Your task to perform on an android device: turn on data saver in the chrome app Image 0: 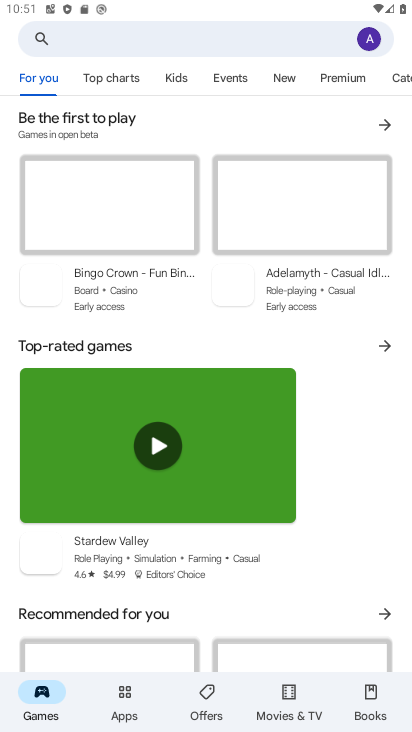
Step 0: press home button
Your task to perform on an android device: turn on data saver in the chrome app Image 1: 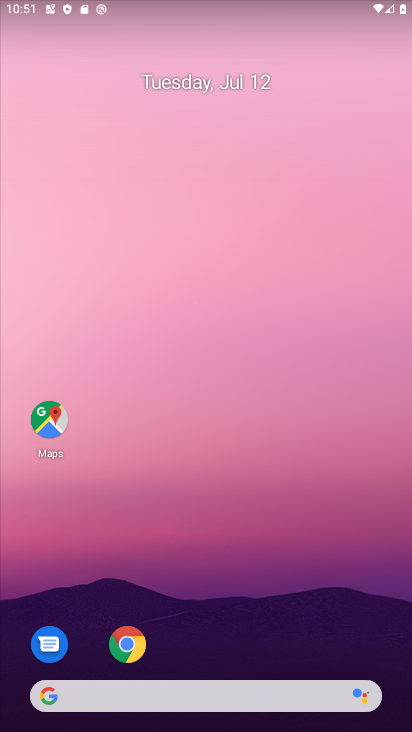
Step 1: drag from (320, 573) to (258, 9)
Your task to perform on an android device: turn on data saver in the chrome app Image 2: 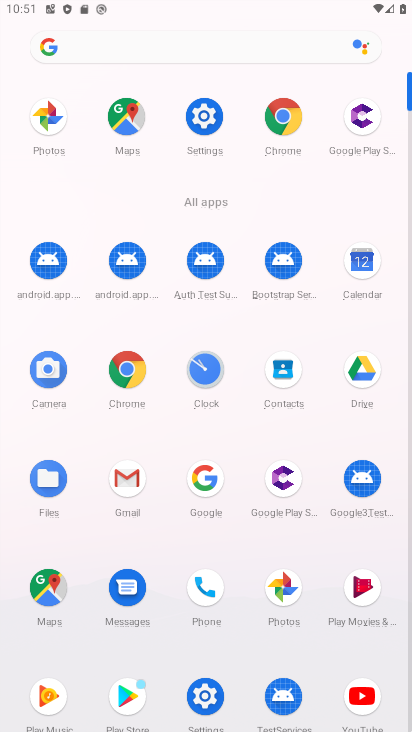
Step 2: click (285, 115)
Your task to perform on an android device: turn on data saver in the chrome app Image 3: 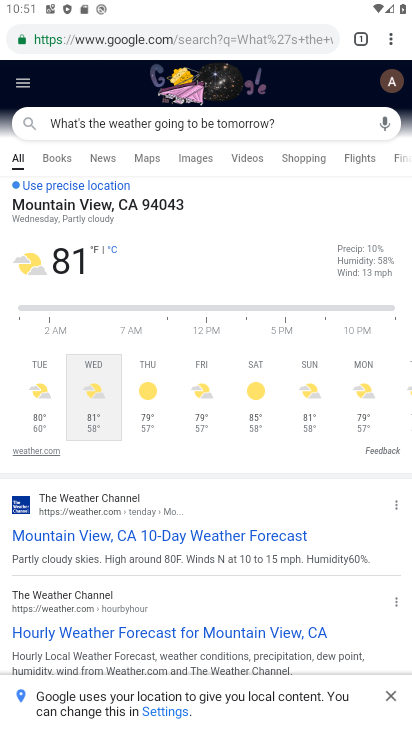
Step 3: click (390, 43)
Your task to perform on an android device: turn on data saver in the chrome app Image 4: 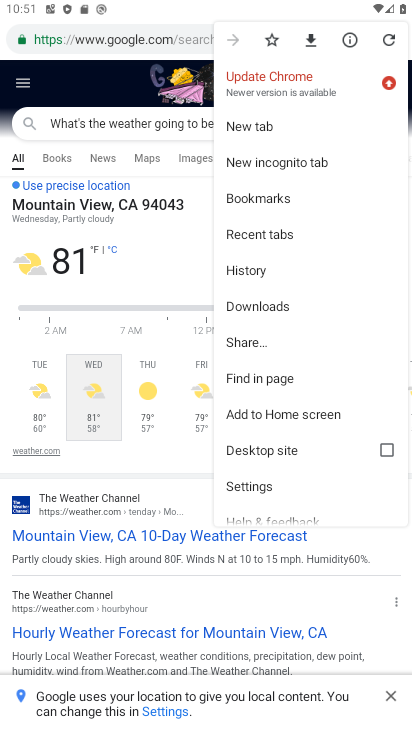
Step 4: click (277, 491)
Your task to perform on an android device: turn on data saver in the chrome app Image 5: 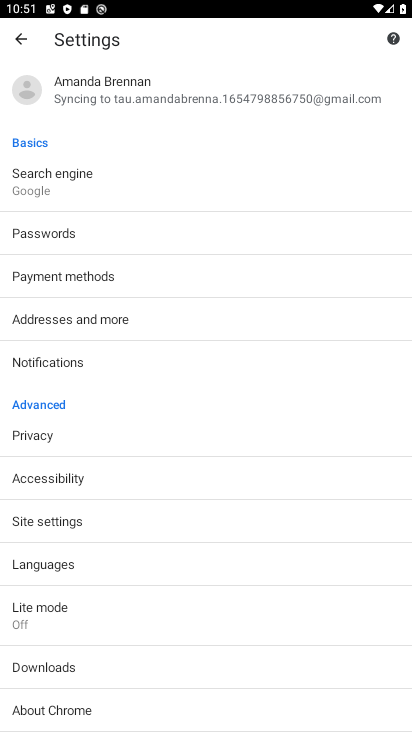
Step 5: click (89, 617)
Your task to perform on an android device: turn on data saver in the chrome app Image 6: 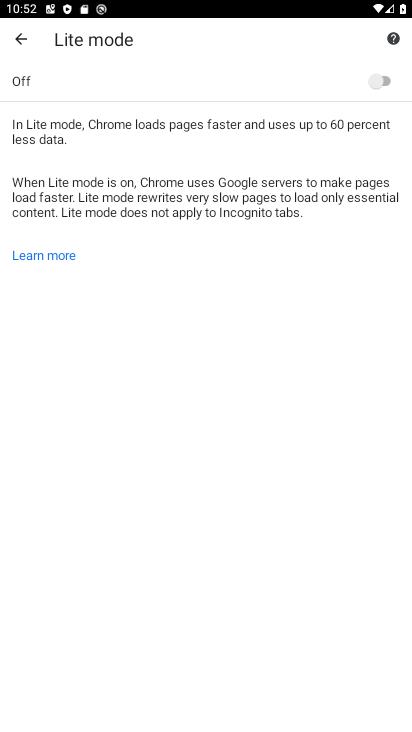
Step 6: click (380, 84)
Your task to perform on an android device: turn on data saver in the chrome app Image 7: 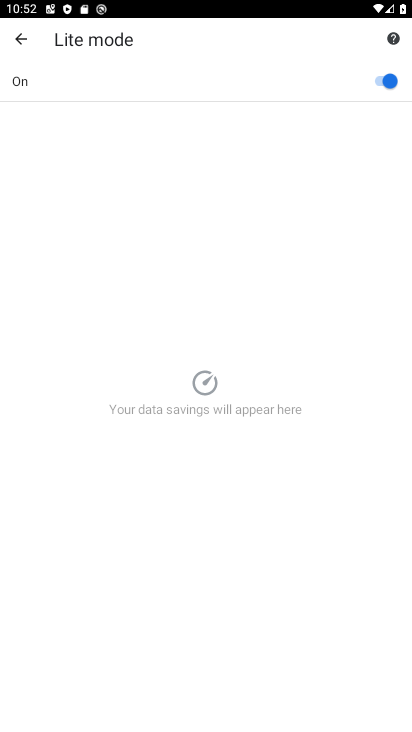
Step 7: task complete